Your task to perform on an android device: Open the Play Movies app and select the watchlist tab. Image 0: 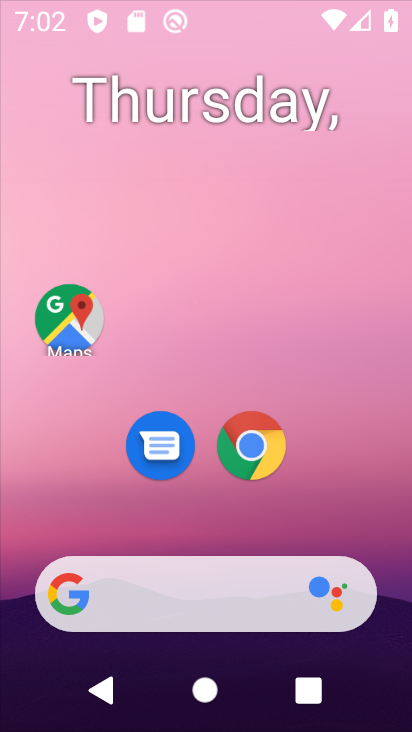
Step 0: click (266, 272)
Your task to perform on an android device: Open the Play Movies app and select the watchlist tab. Image 1: 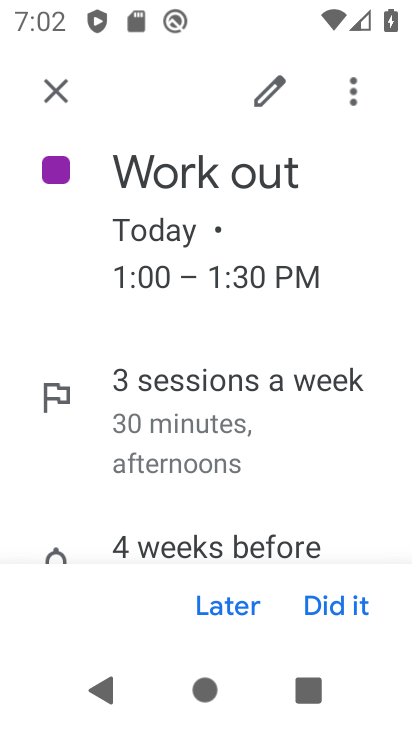
Step 1: press home button
Your task to perform on an android device: Open the Play Movies app and select the watchlist tab. Image 2: 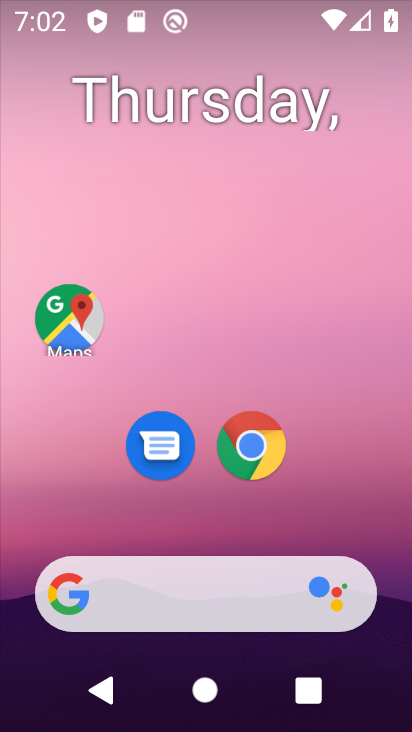
Step 2: drag from (348, 542) to (263, 118)
Your task to perform on an android device: Open the Play Movies app and select the watchlist tab. Image 3: 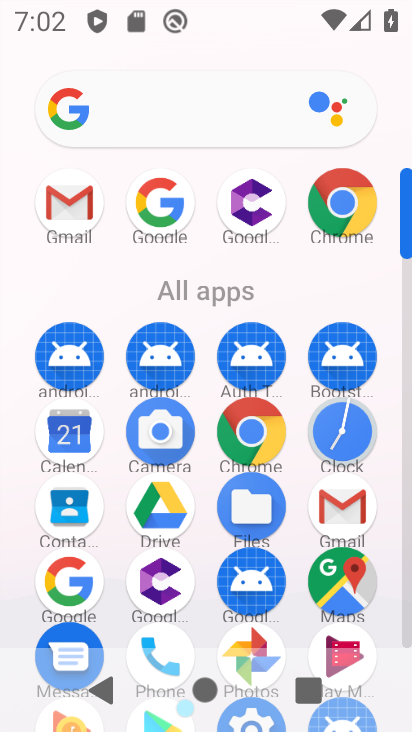
Step 3: click (333, 638)
Your task to perform on an android device: Open the Play Movies app and select the watchlist tab. Image 4: 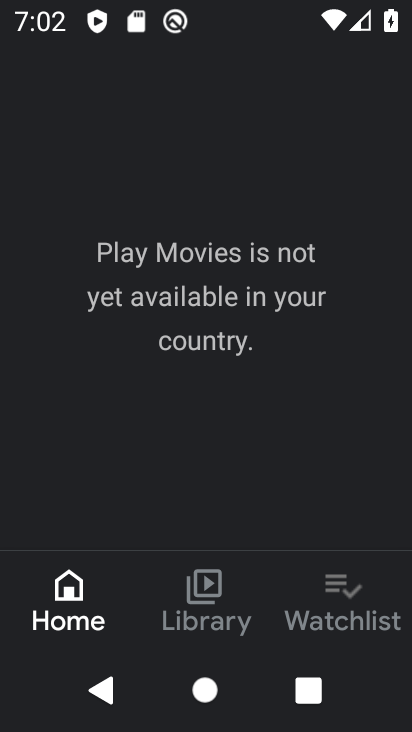
Step 4: click (345, 604)
Your task to perform on an android device: Open the Play Movies app and select the watchlist tab. Image 5: 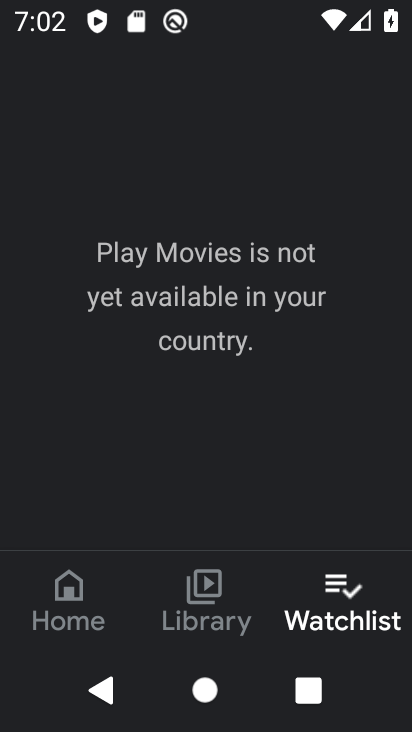
Step 5: task complete